Your task to perform on an android device: Open settings on Google Maps Image 0: 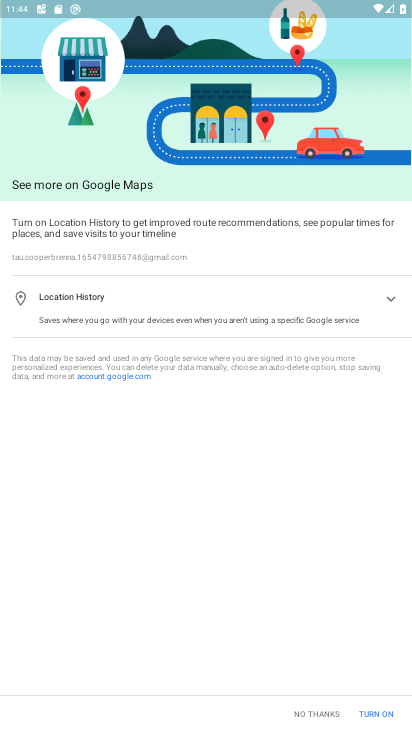
Step 0: press home button
Your task to perform on an android device: Open settings on Google Maps Image 1: 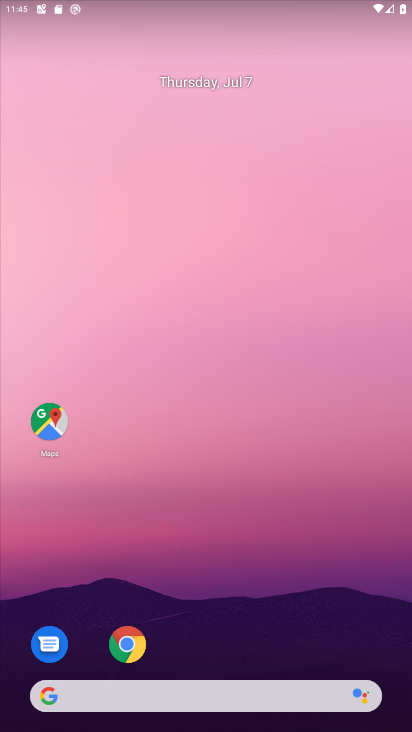
Step 1: drag from (35, 712) to (258, 7)
Your task to perform on an android device: Open settings on Google Maps Image 2: 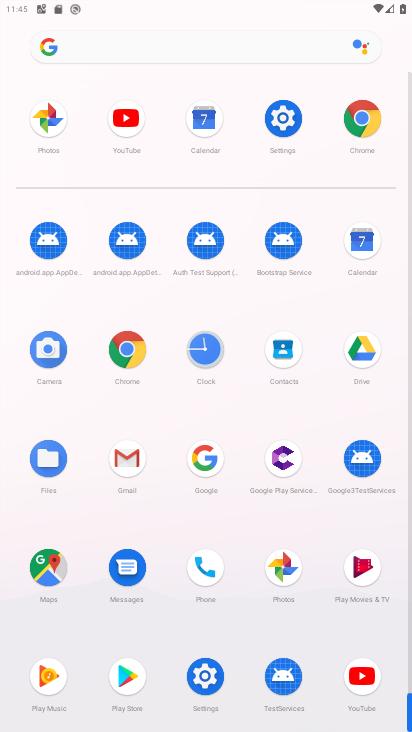
Step 2: click (47, 550)
Your task to perform on an android device: Open settings on Google Maps Image 3: 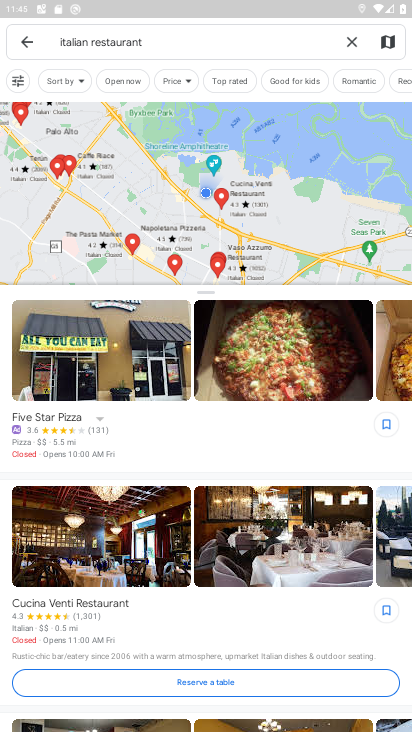
Step 3: click (24, 40)
Your task to perform on an android device: Open settings on Google Maps Image 4: 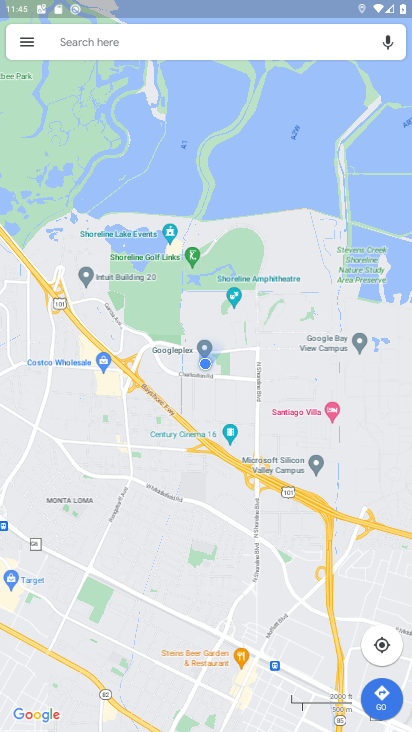
Step 4: click (23, 45)
Your task to perform on an android device: Open settings on Google Maps Image 5: 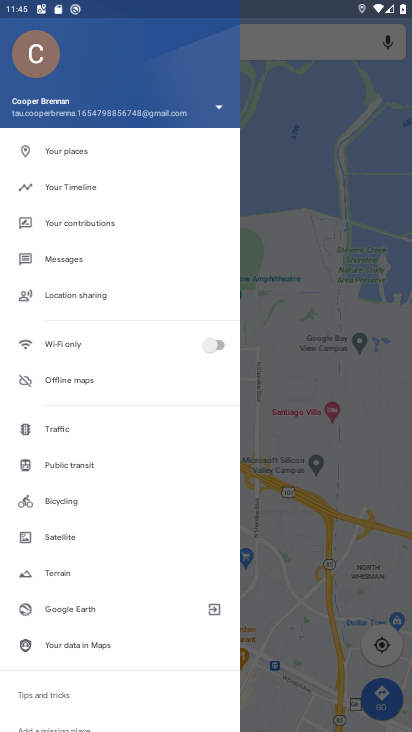
Step 5: drag from (58, 406) to (15, 192)
Your task to perform on an android device: Open settings on Google Maps Image 6: 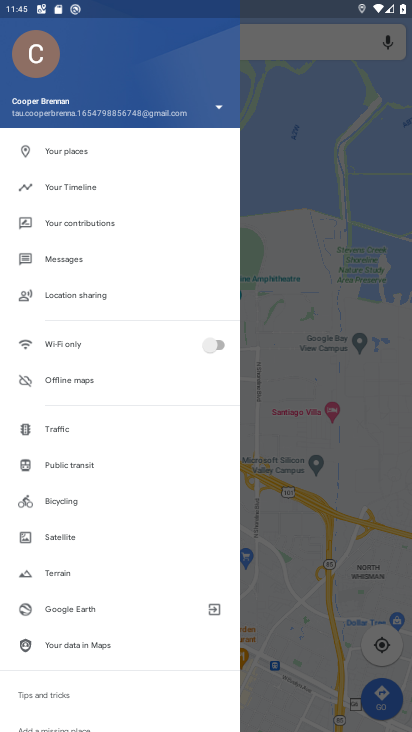
Step 6: drag from (122, 622) to (34, 55)
Your task to perform on an android device: Open settings on Google Maps Image 7: 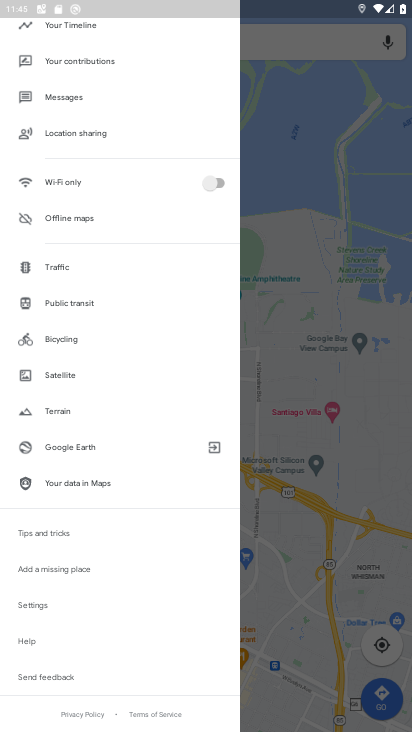
Step 7: drag from (140, 645) to (63, 290)
Your task to perform on an android device: Open settings on Google Maps Image 8: 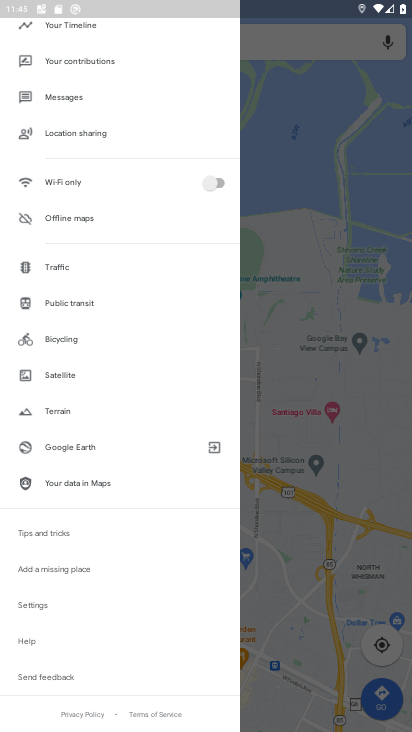
Step 8: click (28, 599)
Your task to perform on an android device: Open settings on Google Maps Image 9: 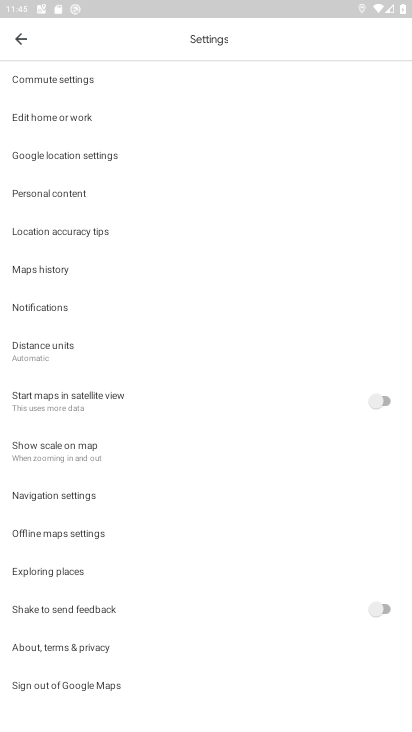
Step 9: task complete